Your task to perform on an android device: Search for pizza restaurants on Maps Image 0: 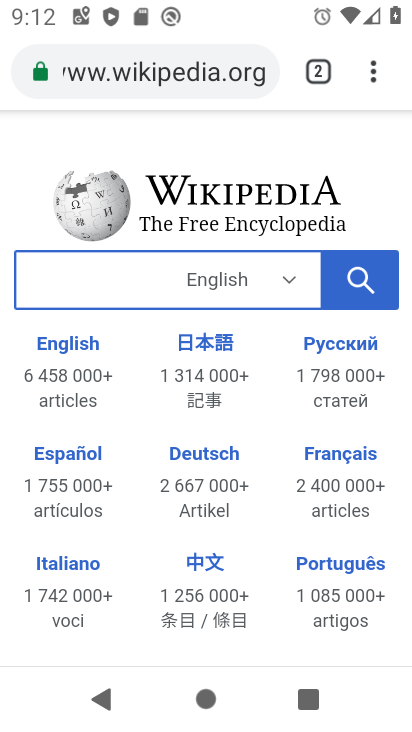
Step 0: press home button
Your task to perform on an android device: Search for pizza restaurants on Maps Image 1: 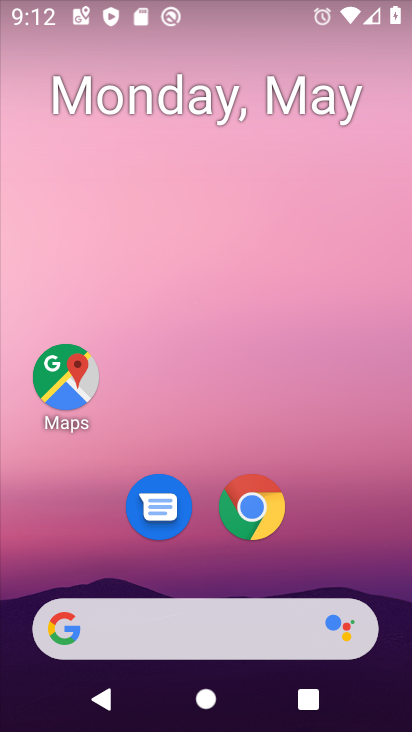
Step 1: click (66, 377)
Your task to perform on an android device: Search for pizza restaurants on Maps Image 2: 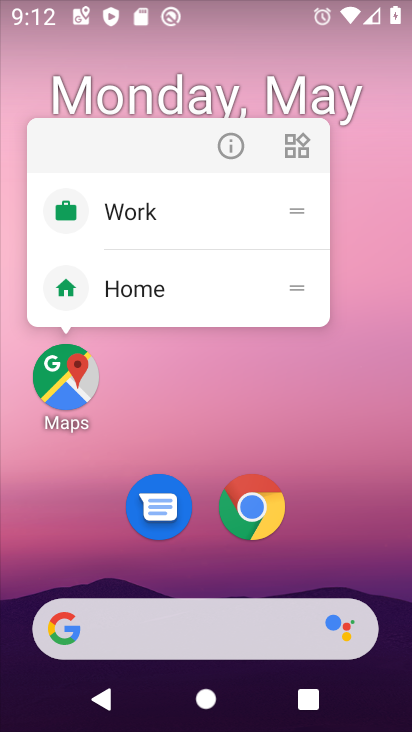
Step 2: click (66, 367)
Your task to perform on an android device: Search for pizza restaurants on Maps Image 3: 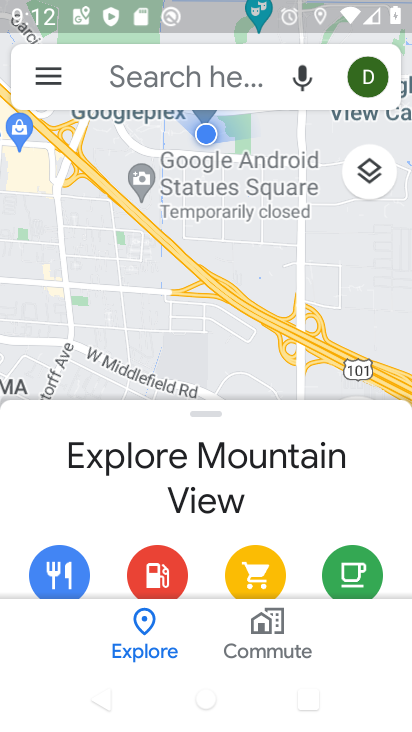
Step 3: click (136, 85)
Your task to perform on an android device: Search for pizza restaurants on Maps Image 4: 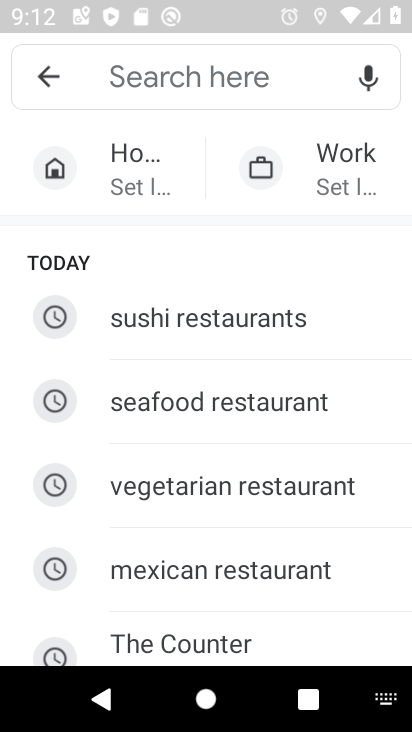
Step 4: type "Pizza restaurant"
Your task to perform on an android device: Search for pizza restaurants on Maps Image 5: 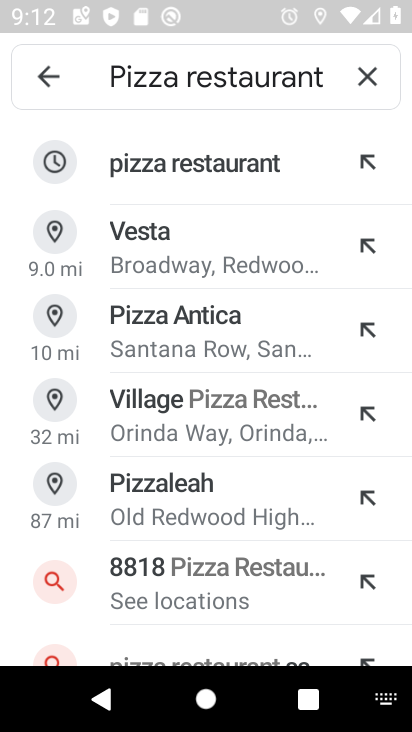
Step 5: click (205, 174)
Your task to perform on an android device: Search for pizza restaurants on Maps Image 6: 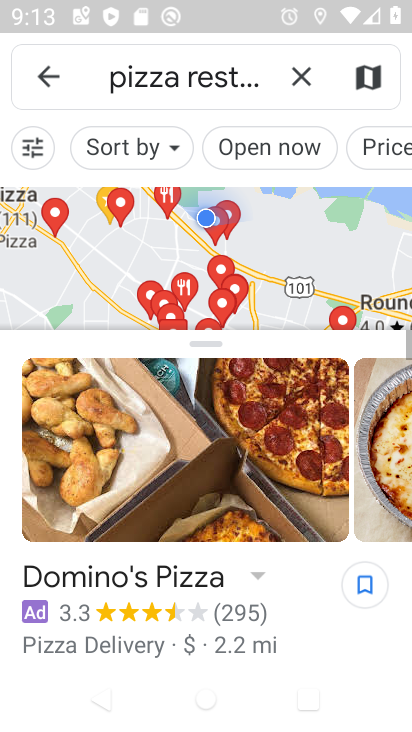
Step 6: task complete